Your task to perform on an android device: turn off sleep mode Image 0: 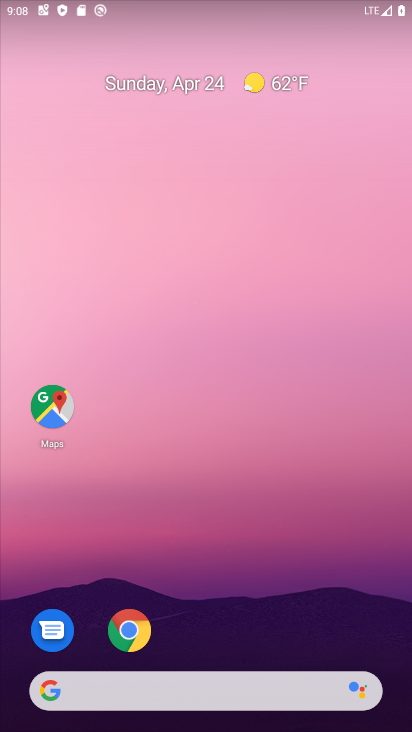
Step 0: drag from (248, 527) to (227, 85)
Your task to perform on an android device: turn off sleep mode Image 1: 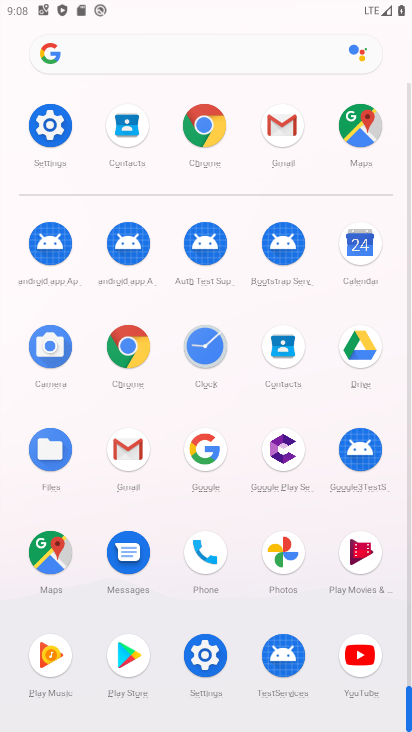
Step 1: drag from (18, 487) to (17, 275)
Your task to perform on an android device: turn off sleep mode Image 2: 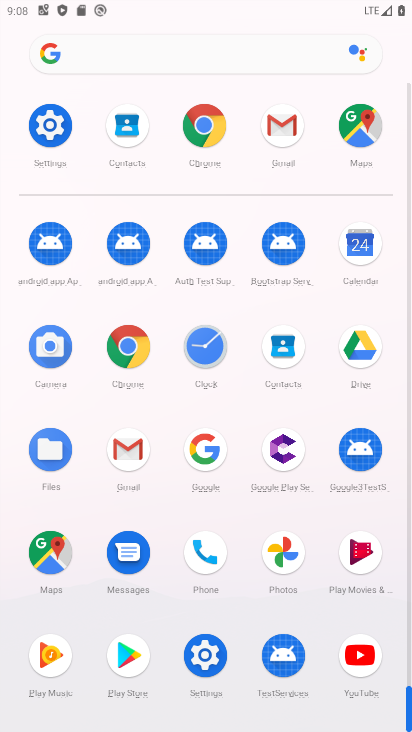
Step 2: click (205, 649)
Your task to perform on an android device: turn off sleep mode Image 3: 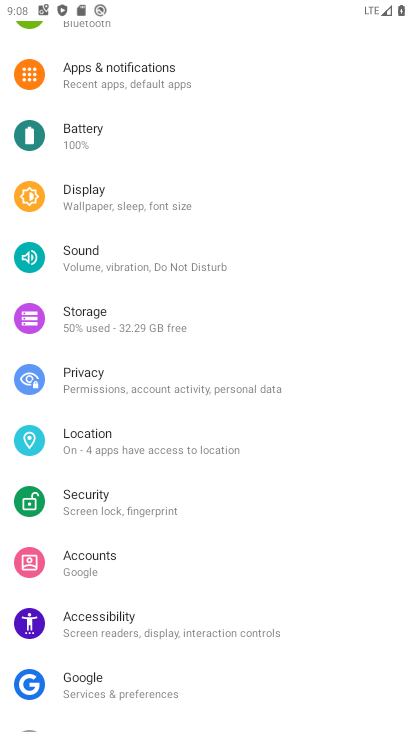
Step 3: drag from (255, 221) to (264, 593)
Your task to perform on an android device: turn off sleep mode Image 4: 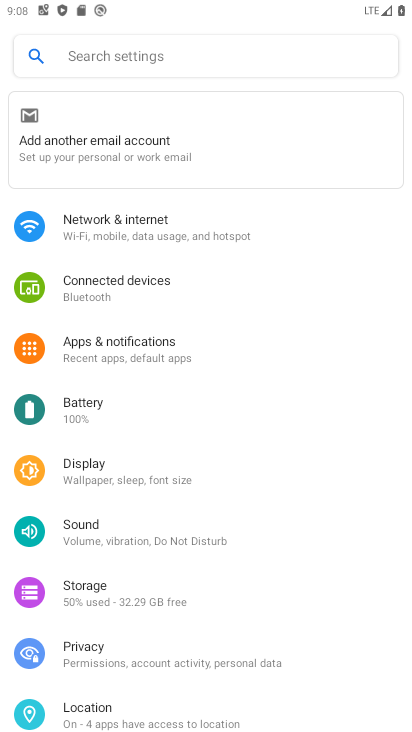
Step 4: click (97, 462)
Your task to perform on an android device: turn off sleep mode Image 5: 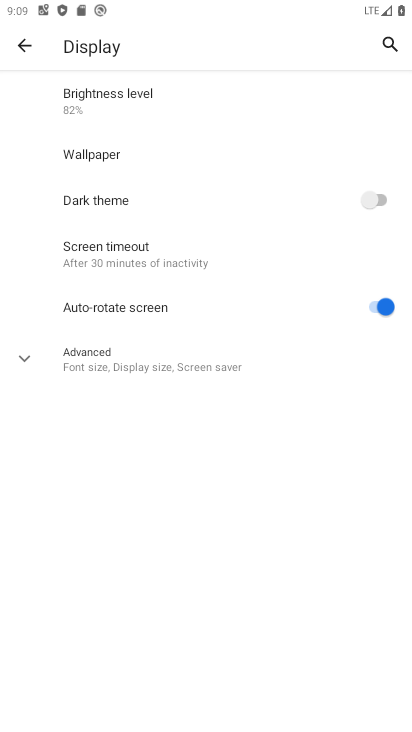
Step 5: click (48, 356)
Your task to perform on an android device: turn off sleep mode Image 6: 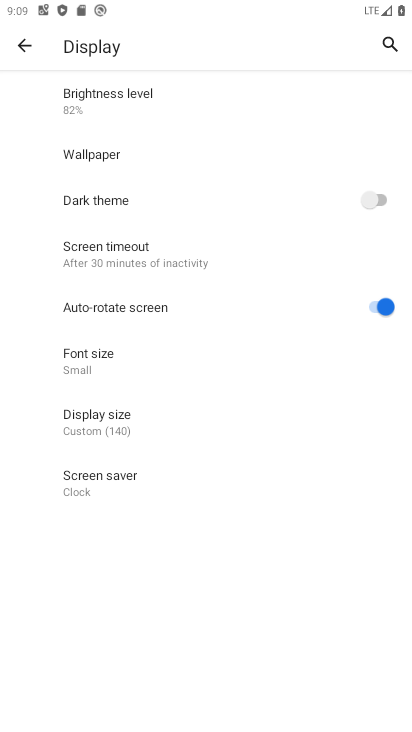
Step 6: task complete